Your task to perform on an android device: Open Chrome and go to settings Image 0: 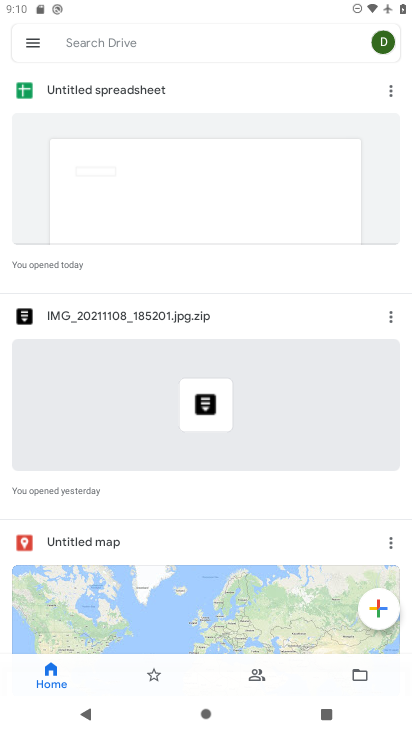
Step 0: press home button
Your task to perform on an android device: Open Chrome and go to settings Image 1: 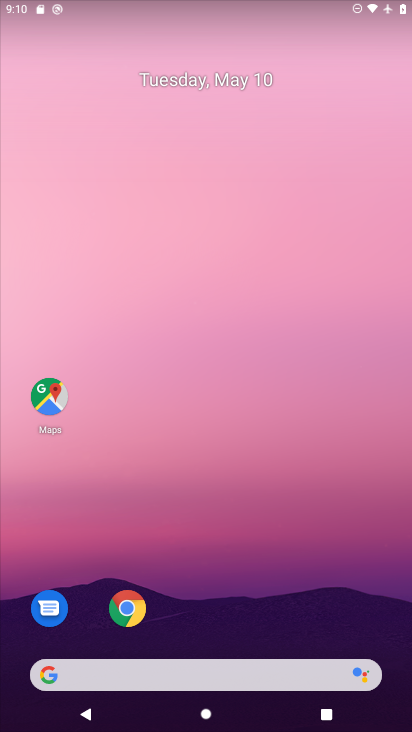
Step 1: drag from (270, 587) to (315, 225)
Your task to perform on an android device: Open Chrome and go to settings Image 2: 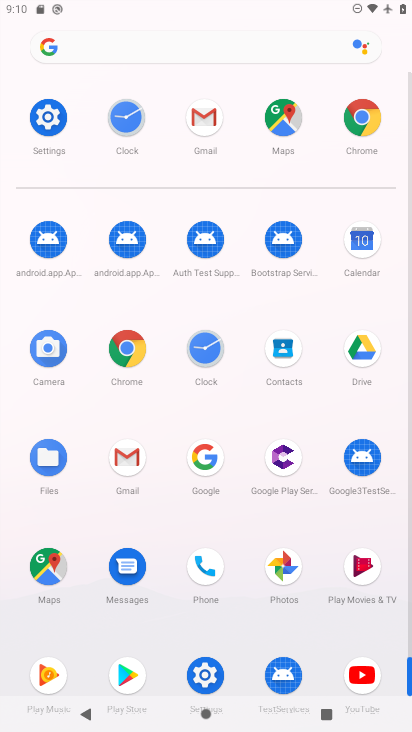
Step 2: click (359, 118)
Your task to perform on an android device: Open Chrome and go to settings Image 3: 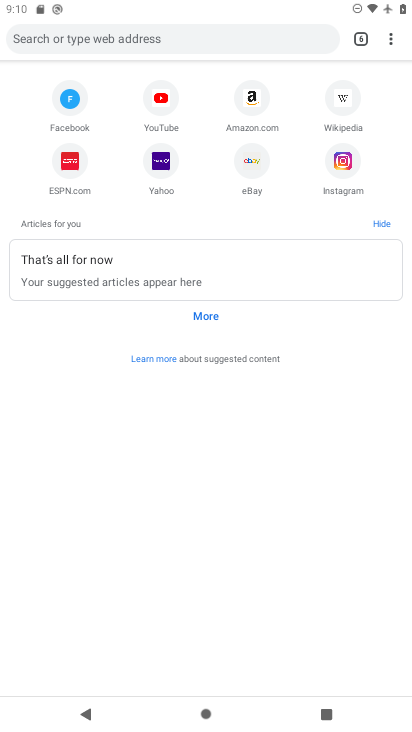
Step 3: click (380, 36)
Your task to perform on an android device: Open Chrome and go to settings Image 4: 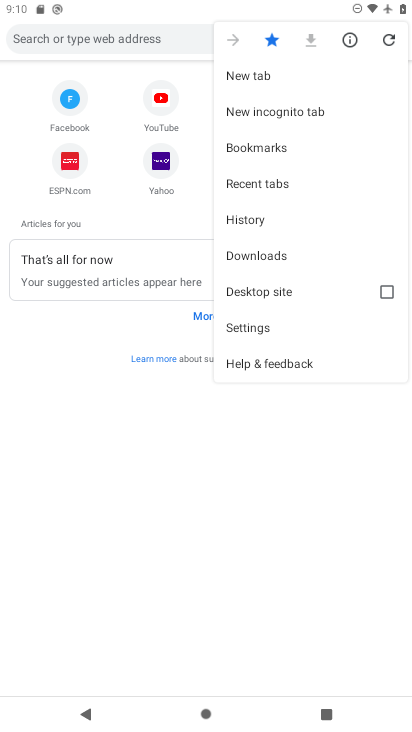
Step 4: click (265, 318)
Your task to perform on an android device: Open Chrome and go to settings Image 5: 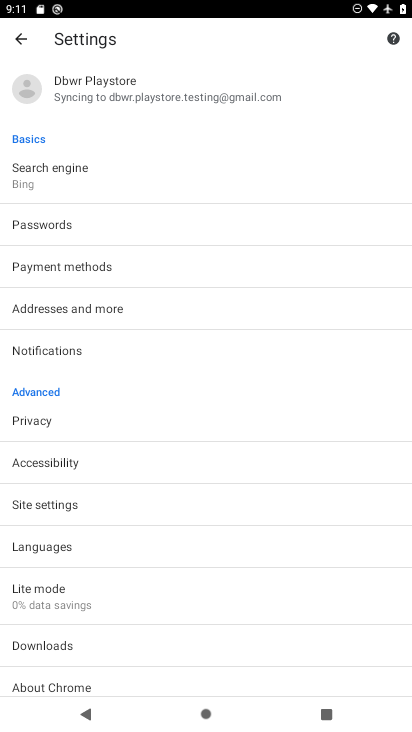
Step 5: task complete